Your task to perform on an android device: turn notification dots off Image 0: 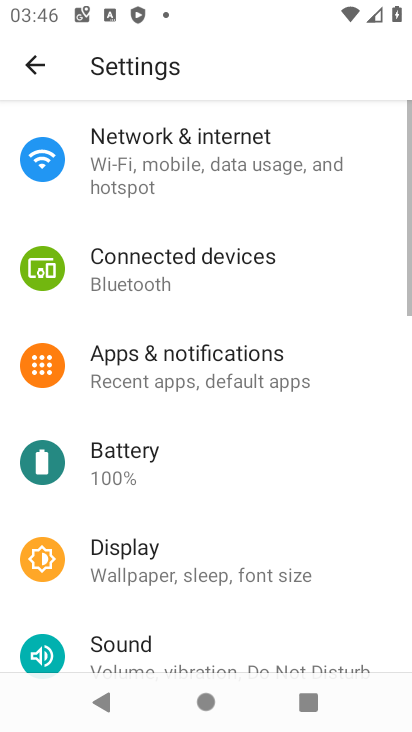
Step 0: press home button
Your task to perform on an android device: turn notification dots off Image 1: 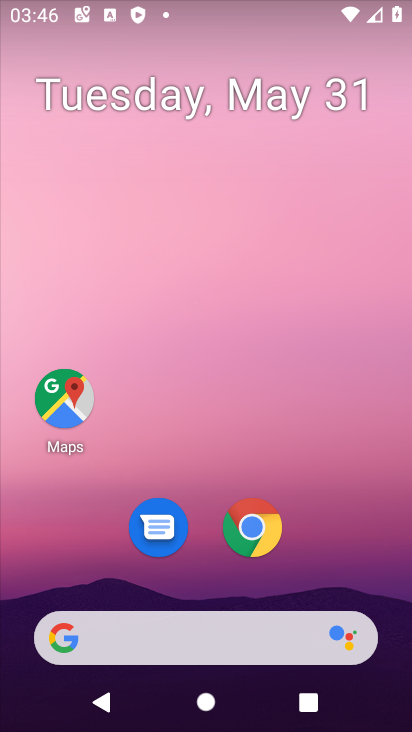
Step 1: drag from (323, 625) to (249, 105)
Your task to perform on an android device: turn notification dots off Image 2: 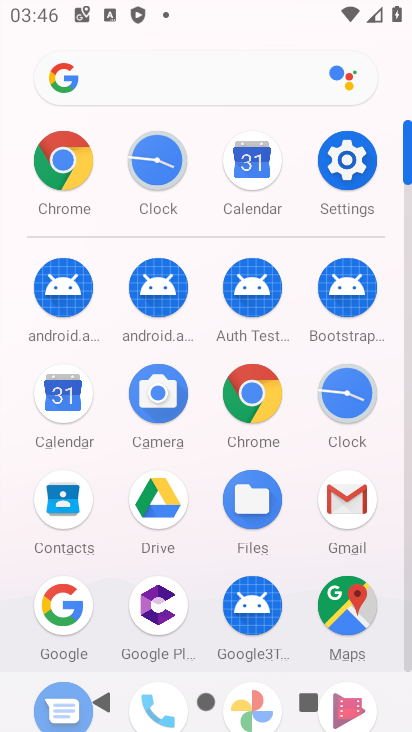
Step 2: click (345, 164)
Your task to perform on an android device: turn notification dots off Image 3: 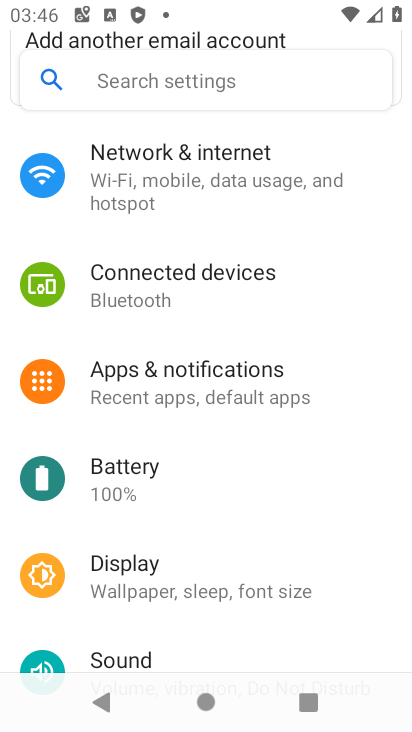
Step 3: click (178, 365)
Your task to perform on an android device: turn notification dots off Image 4: 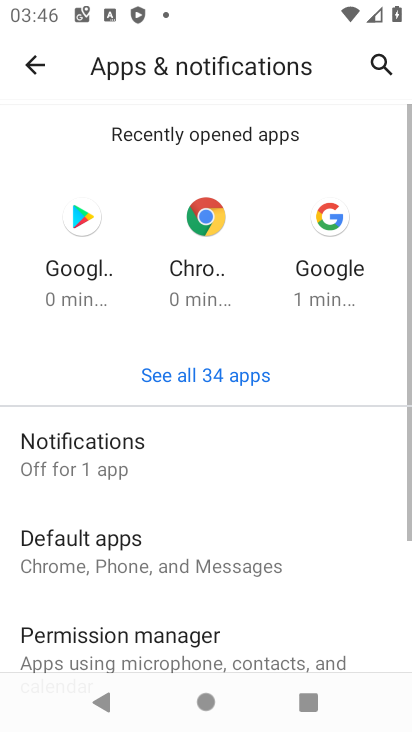
Step 4: click (100, 460)
Your task to perform on an android device: turn notification dots off Image 5: 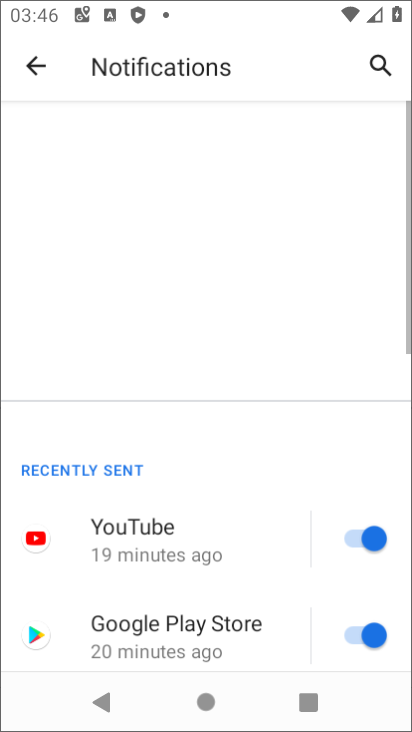
Step 5: drag from (283, 569) to (258, 144)
Your task to perform on an android device: turn notification dots off Image 6: 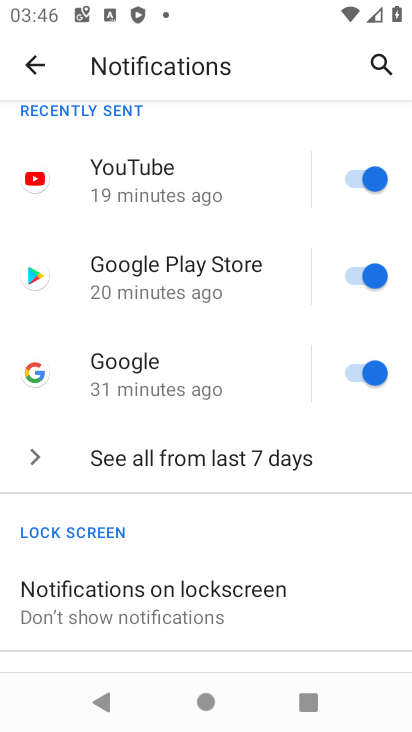
Step 6: drag from (290, 593) to (271, 202)
Your task to perform on an android device: turn notification dots off Image 7: 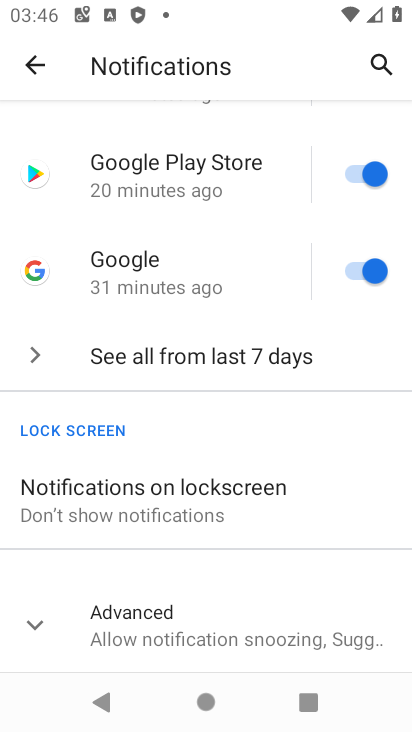
Step 7: click (92, 627)
Your task to perform on an android device: turn notification dots off Image 8: 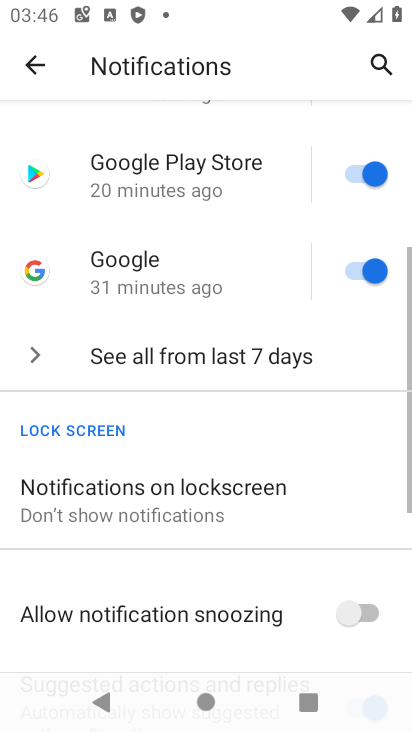
Step 8: drag from (382, 596) to (296, 186)
Your task to perform on an android device: turn notification dots off Image 9: 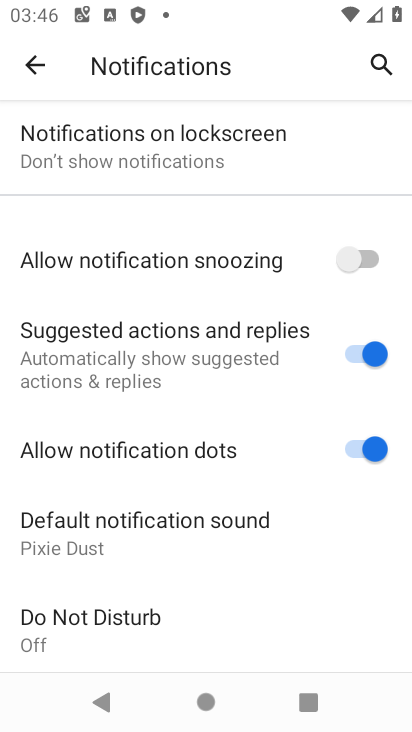
Step 9: click (350, 452)
Your task to perform on an android device: turn notification dots off Image 10: 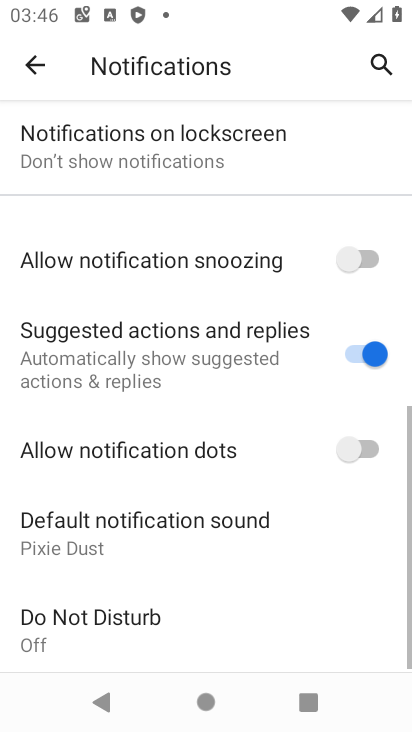
Step 10: task complete